Your task to perform on an android device: turn on data saver in the chrome app Image 0: 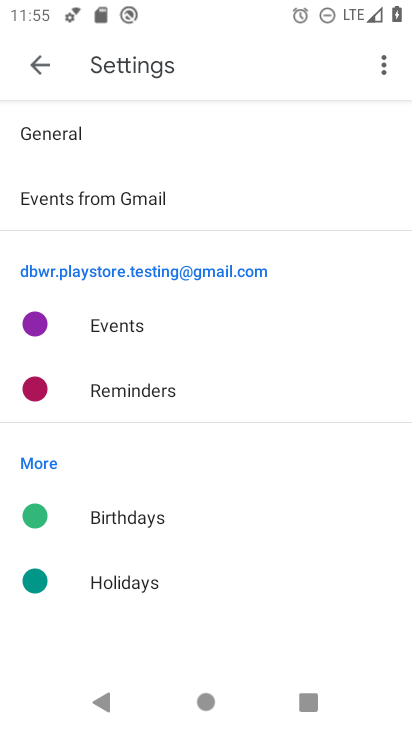
Step 0: press home button
Your task to perform on an android device: turn on data saver in the chrome app Image 1: 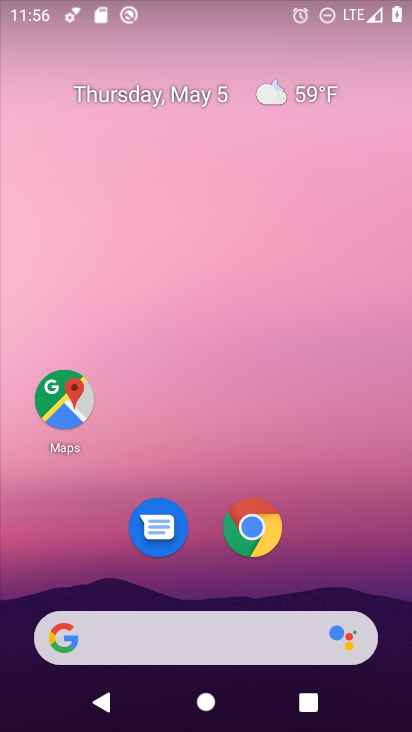
Step 1: click (255, 525)
Your task to perform on an android device: turn on data saver in the chrome app Image 2: 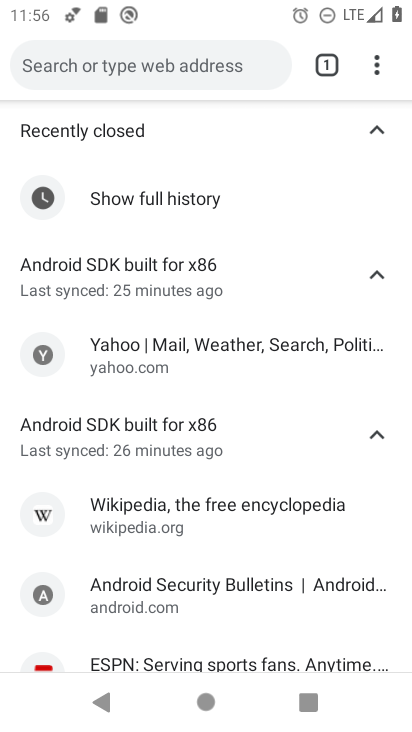
Step 2: click (379, 67)
Your task to perform on an android device: turn on data saver in the chrome app Image 3: 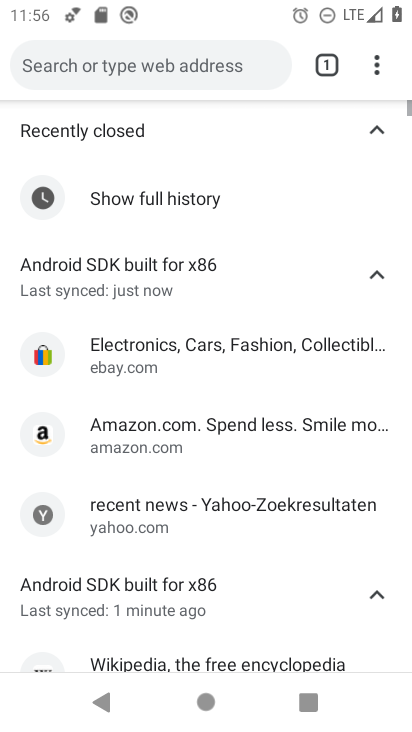
Step 3: drag from (379, 57) to (213, 576)
Your task to perform on an android device: turn on data saver in the chrome app Image 4: 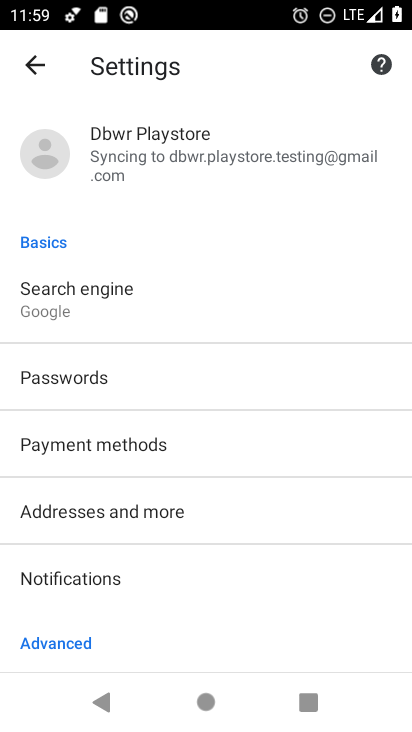
Step 4: drag from (191, 541) to (236, 22)
Your task to perform on an android device: turn on data saver in the chrome app Image 5: 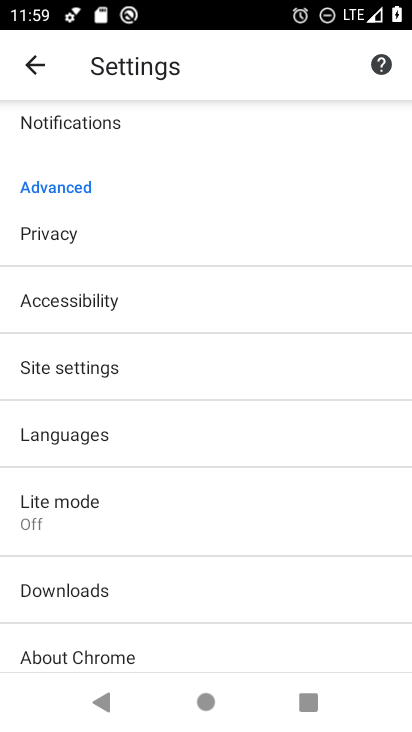
Step 5: click (91, 518)
Your task to perform on an android device: turn on data saver in the chrome app Image 6: 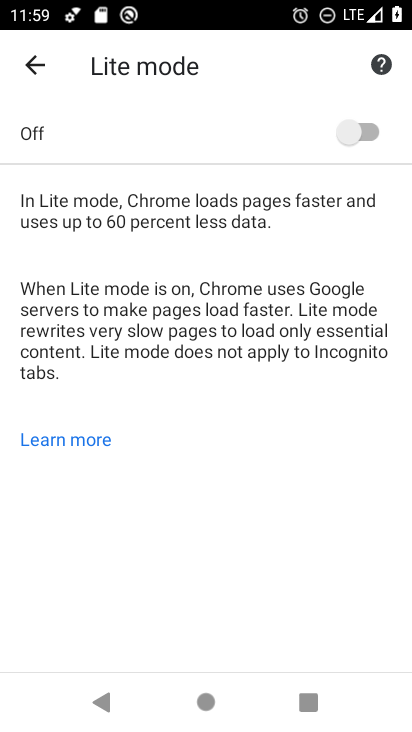
Step 6: click (372, 137)
Your task to perform on an android device: turn on data saver in the chrome app Image 7: 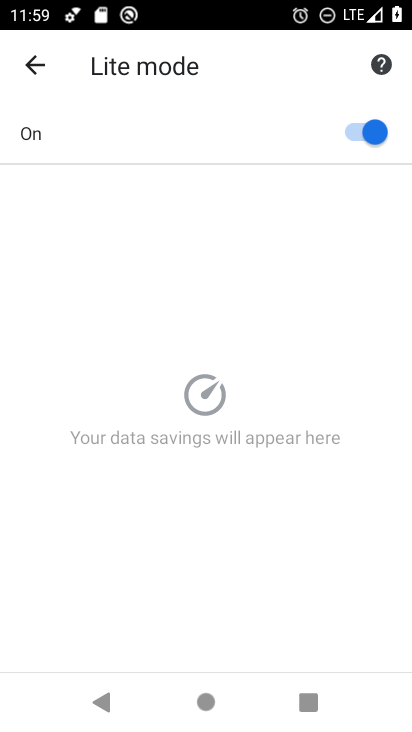
Step 7: task complete